Your task to perform on an android device: check battery use Image 0: 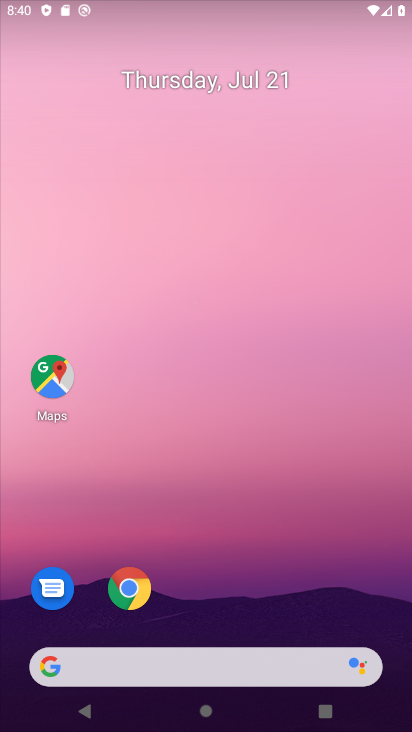
Step 0: drag from (175, 631) to (178, 195)
Your task to perform on an android device: check battery use Image 1: 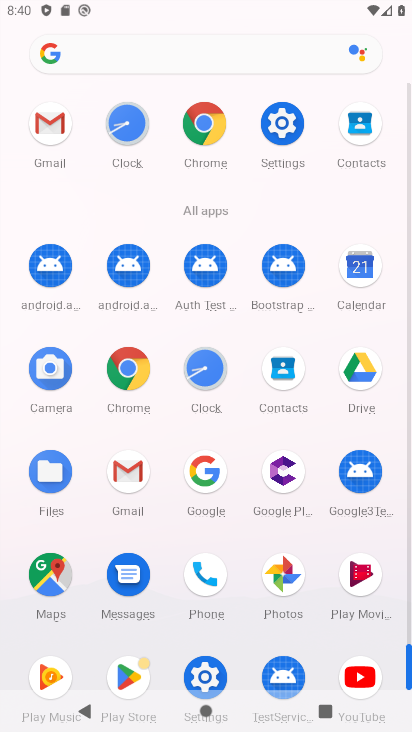
Step 1: click (285, 128)
Your task to perform on an android device: check battery use Image 2: 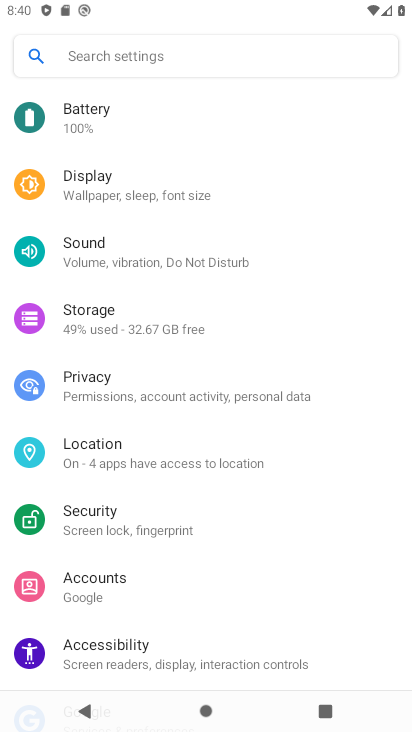
Step 2: drag from (141, 538) to (107, 193)
Your task to perform on an android device: check battery use Image 3: 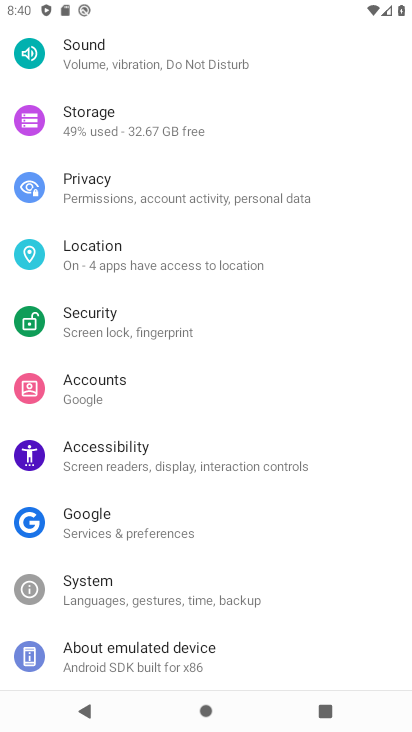
Step 3: drag from (105, 143) to (140, 557)
Your task to perform on an android device: check battery use Image 4: 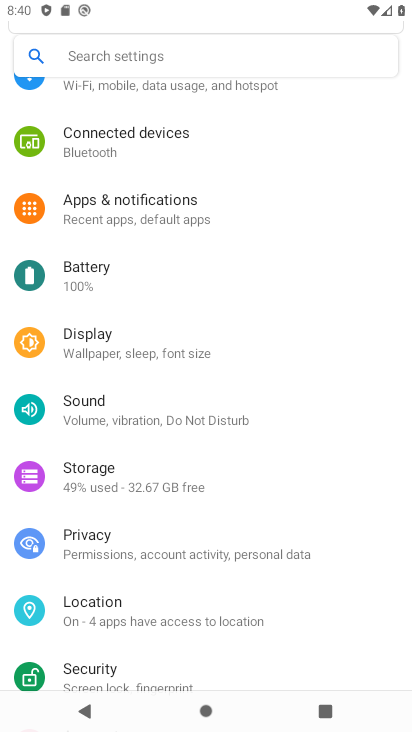
Step 4: click (85, 273)
Your task to perform on an android device: check battery use Image 5: 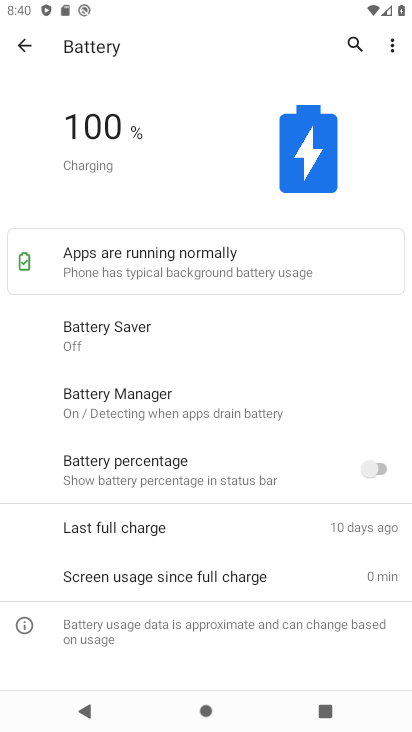
Step 5: task complete